Your task to perform on an android device: Search for pizza restaurants on Maps Image 0: 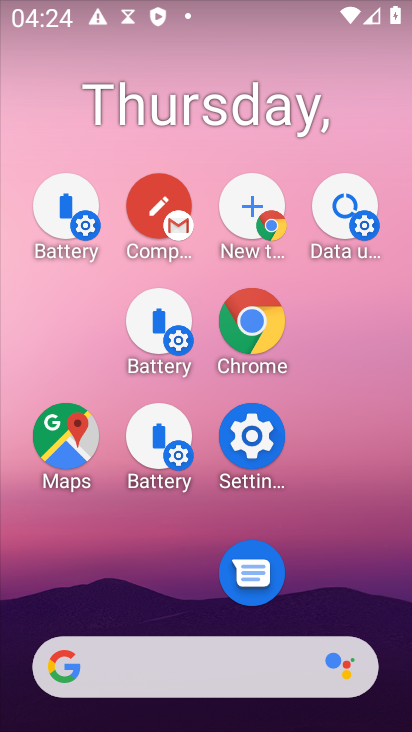
Step 0: drag from (285, 646) to (343, 274)
Your task to perform on an android device: Search for pizza restaurants on Maps Image 1: 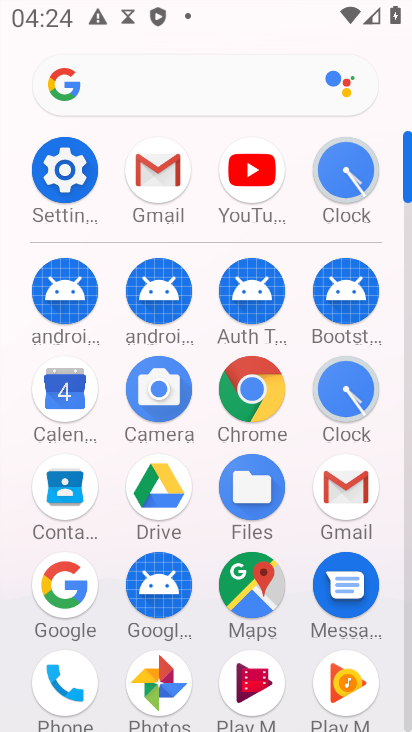
Step 1: click (247, 583)
Your task to perform on an android device: Search for pizza restaurants on Maps Image 2: 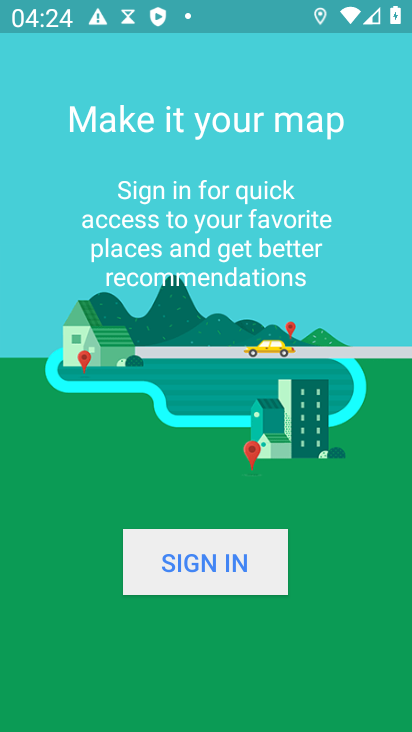
Step 2: click (330, 42)
Your task to perform on an android device: Search for pizza restaurants on Maps Image 3: 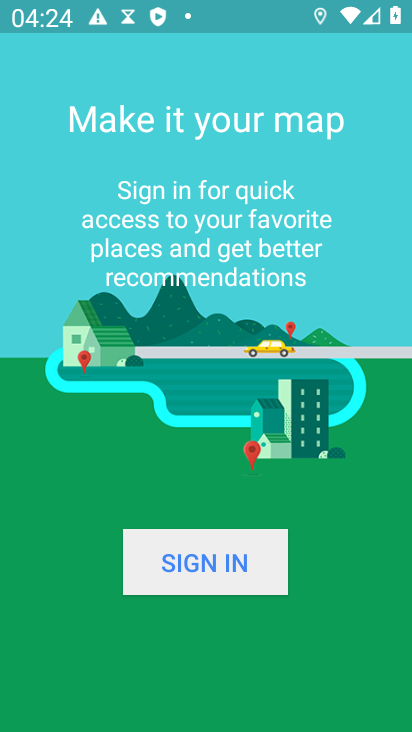
Step 3: press back button
Your task to perform on an android device: Search for pizza restaurants on Maps Image 4: 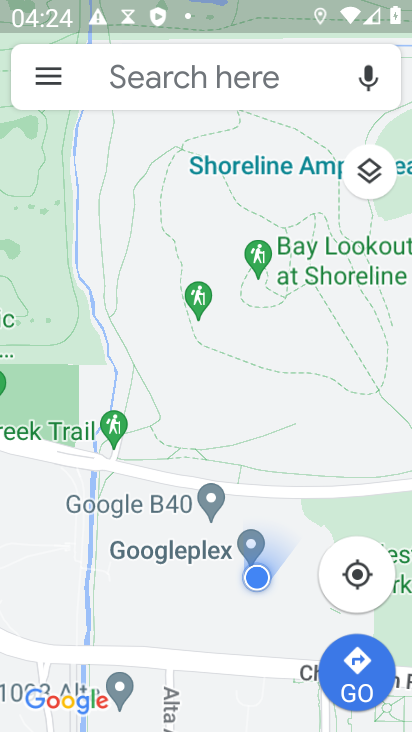
Step 4: click (102, 71)
Your task to perform on an android device: Search for pizza restaurants on Maps Image 5: 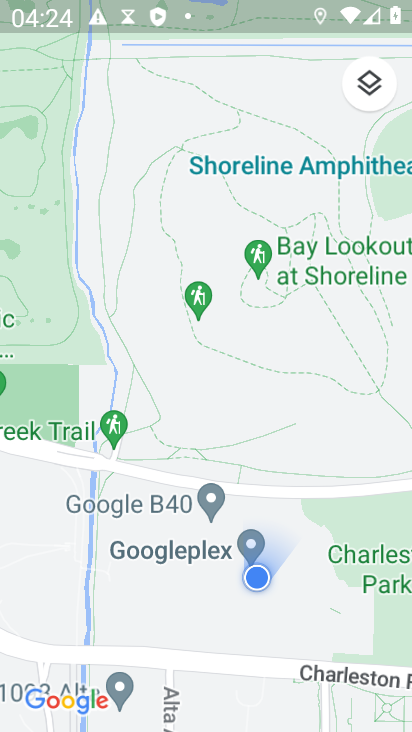
Step 5: click (113, 172)
Your task to perform on an android device: Search for pizza restaurants on Maps Image 6: 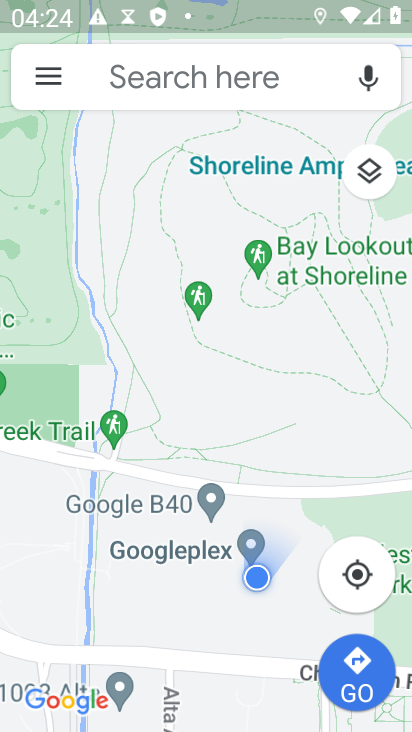
Step 6: click (108, 74)
Your task to perform on an android device: Search for pizza restaurants on Maps Image 7: 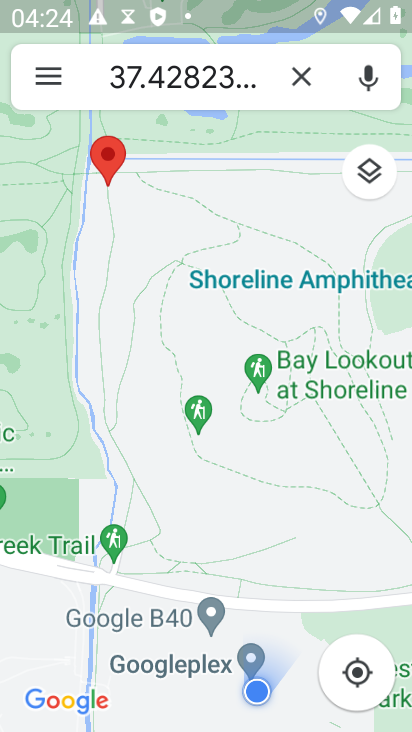
Step 7: click (108, 74)
Your task to perform on an android device: Search for pizza restaurants on Maps Image 8: 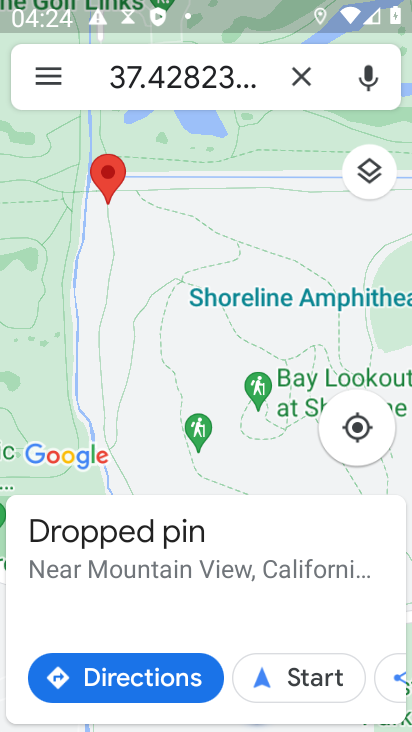
Step 8: click (290, 85)
Your task to perform on an android device: Search for pizza restaurants on Maps Image 9: 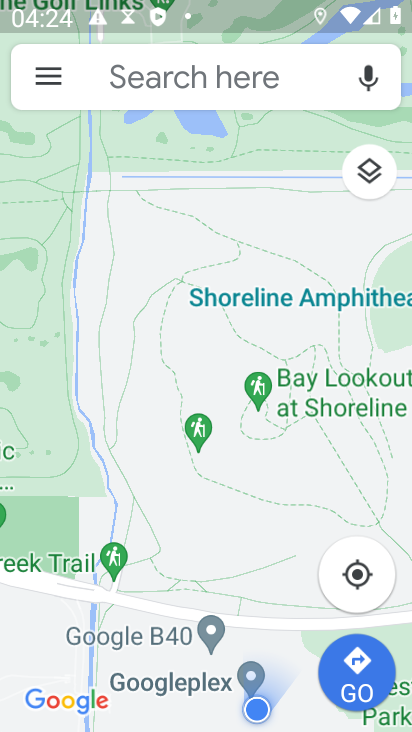
Step 9: type "maps"
Your task to perform on an android device: Search for pizza restaurants on Maps Image 10: 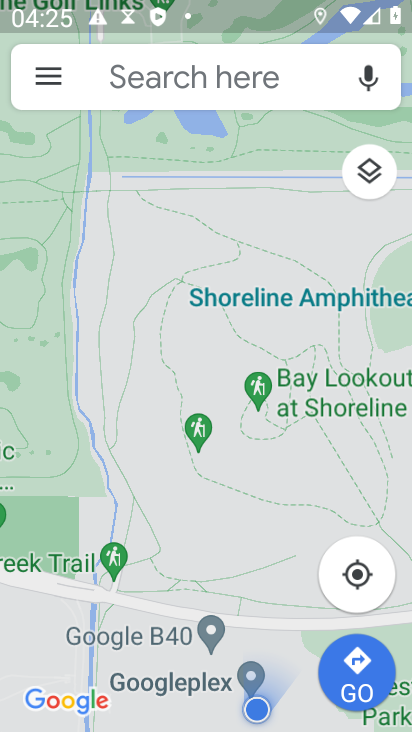
Step 10: click (161, 81)
Your task to perform on an android device: Search for pizza restaurants on Maps Image 11: 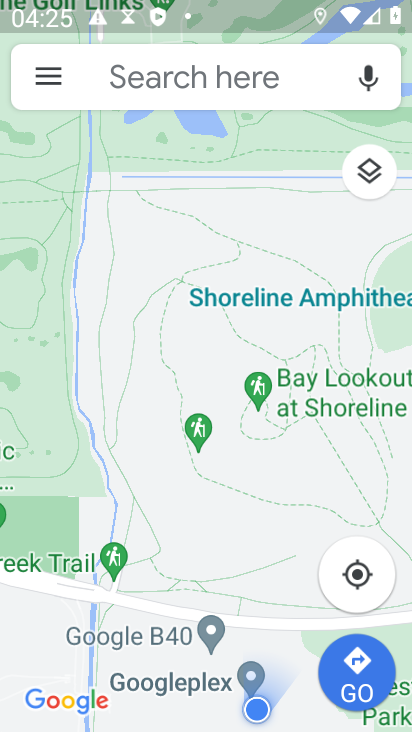
Step 11: click (161, 81)
Your task to perform on an android device: Search for pizza restaurants on Maps Image 12: 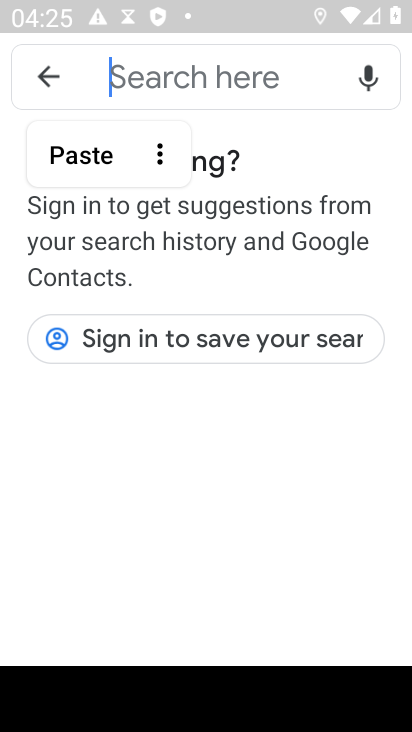
Step 12: type "maps"
Your task to perform on an android device: Search for pizza restaurants on Maps Image 13: 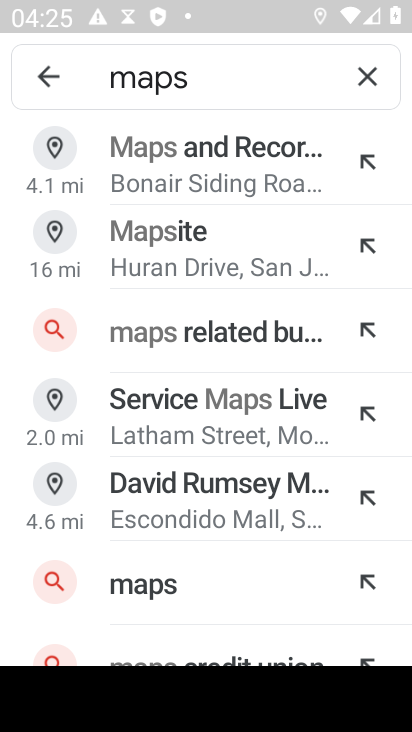
Step 13: click (185, 594)
Your task to perform on an android device: Search for pizza restaurants on Maps Image 14: 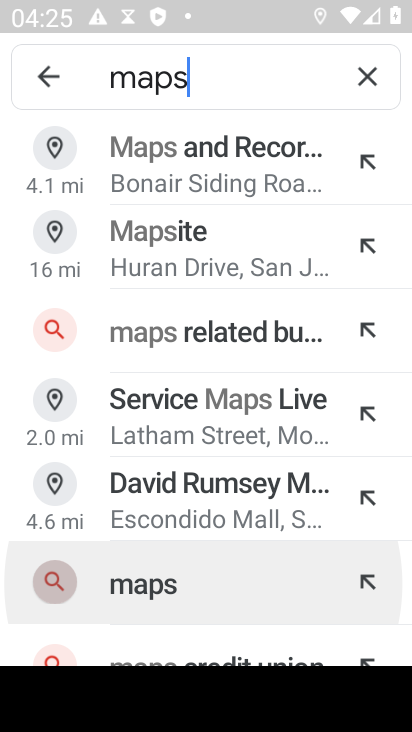
Step 14: click (186, 592)
Your task to perform on an android device: Search for pizza restaurants on Maps Image 15: 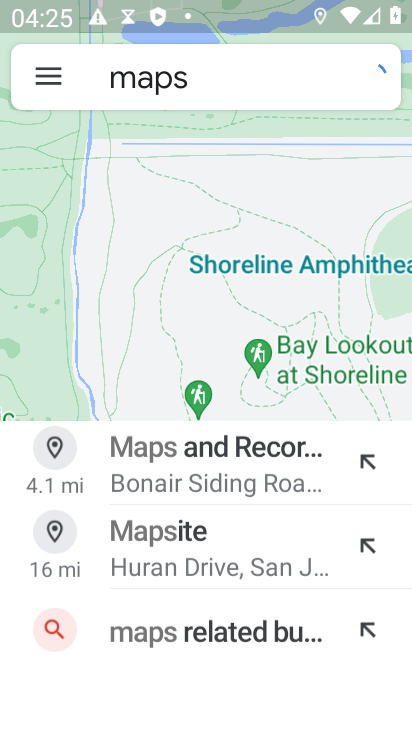
Step 15: click (186, 592)
Your task to perform on an android device: Search for pizza restaurants on Maps Image 16: 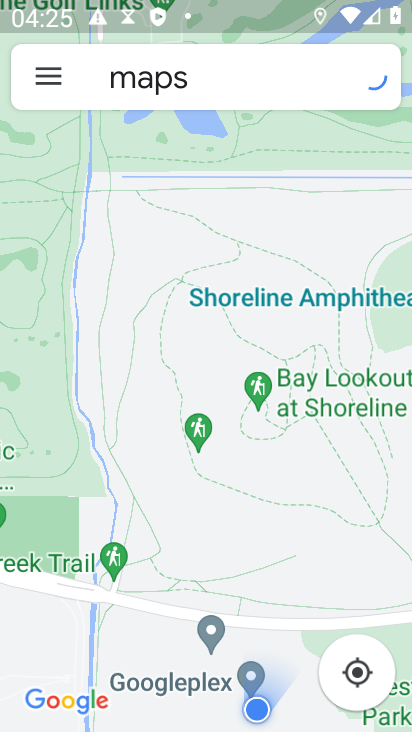
Step 16: click (206, 53)
Your task to perform on an android device: Search for pizza restaurants on Maps Image 17: 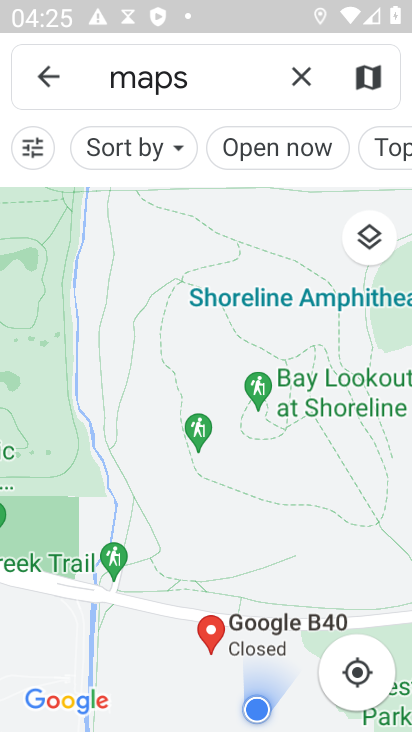
Step 17: click (206, 53)
Your task to perform on an android device: Search for pizza restaurants on Maps Image 18: 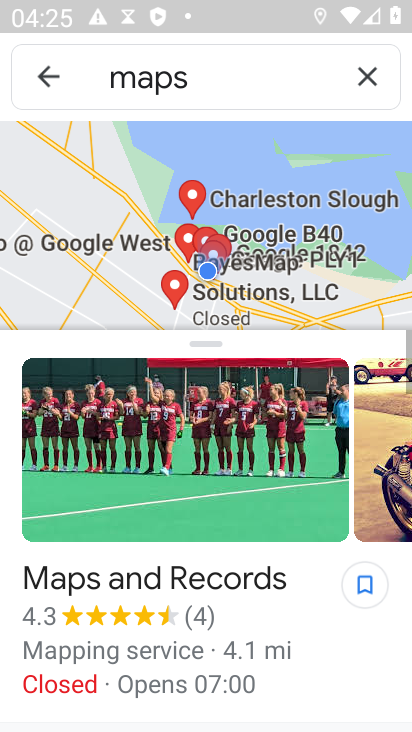
Step 18: click (232, 89)
Your task to perform on an android device: Search for pizza restaurants on Maps Image 19: 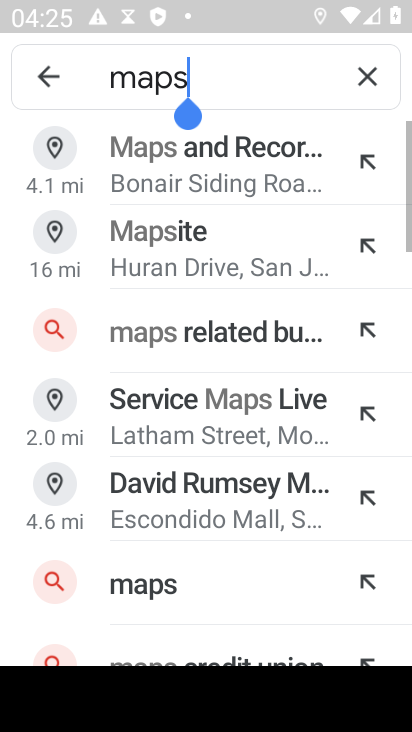
Step 19: click (355, 77)
Your task to perform on an android device: Search for pizza restaurants on Maps Image 20: 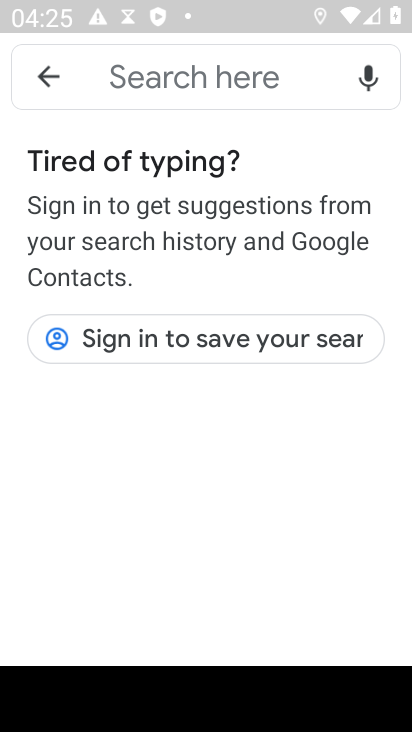
Step 20: type "pizza restaurants"
Your task to perform on an android device: Search for pizza restaurants on Maps Image 21: 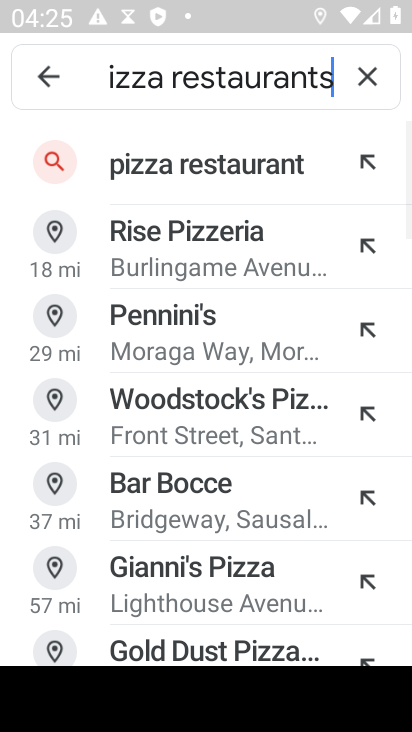
Step 21: click (190, 182)
Your task to perform on an android device: Search for pizza restaurants on Maps Image 22: 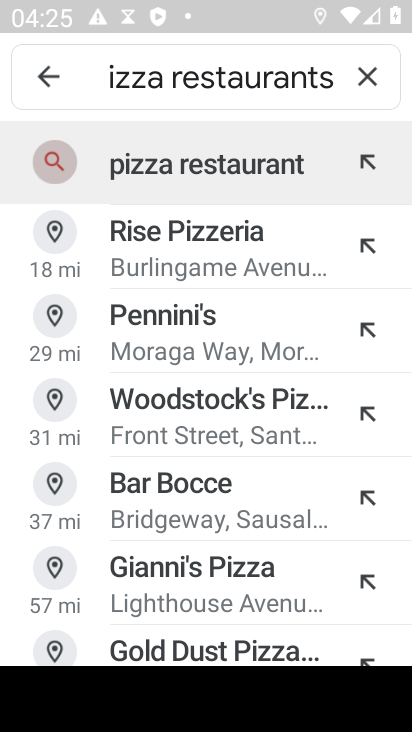
Step 22: click (189, 181)
Your task to perform on an android device: Search for pizza restaurants on Maps Image 23: 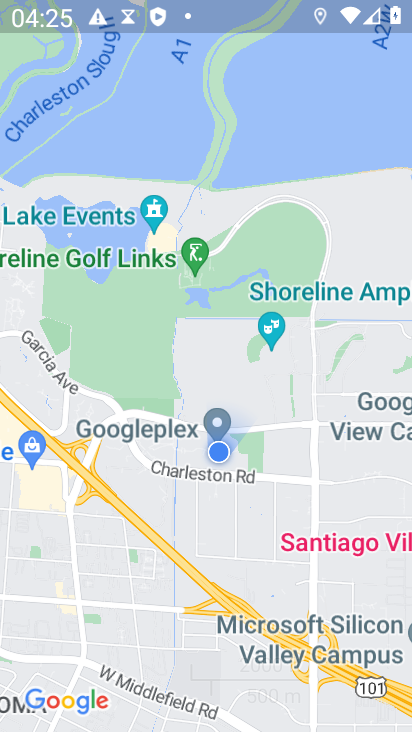
Step 23: task complete